Your task to perform on an android device: delete browsing data in the chrome app Image 0: 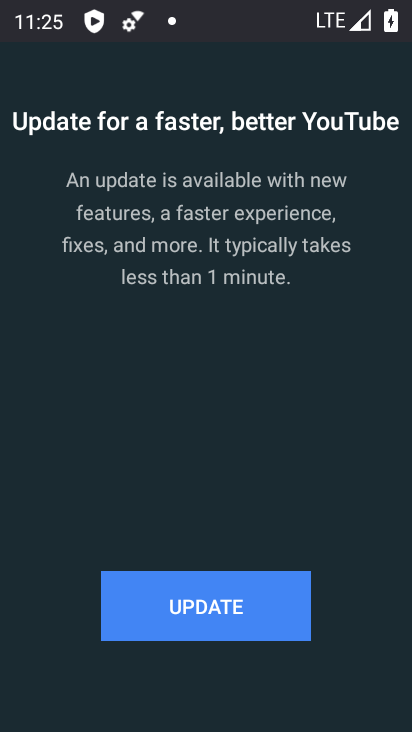
Step 0: task complete